Your task to perform on an android device: Is it going to rain tomorrow? Image 0: 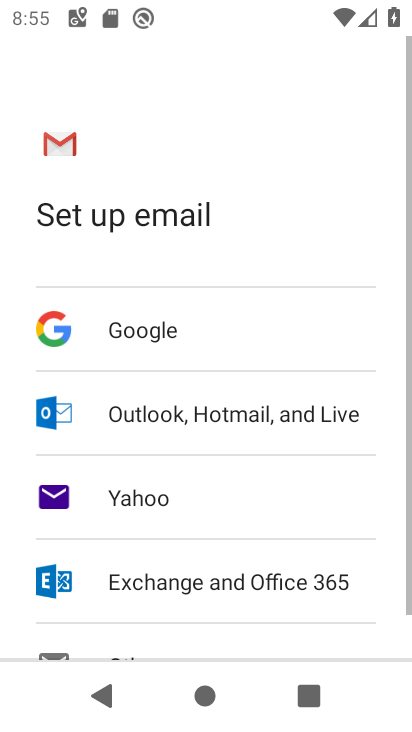
Step 0: press home button
Your task to perform on an android device: Is it going to rain tomorrow? Image 1: 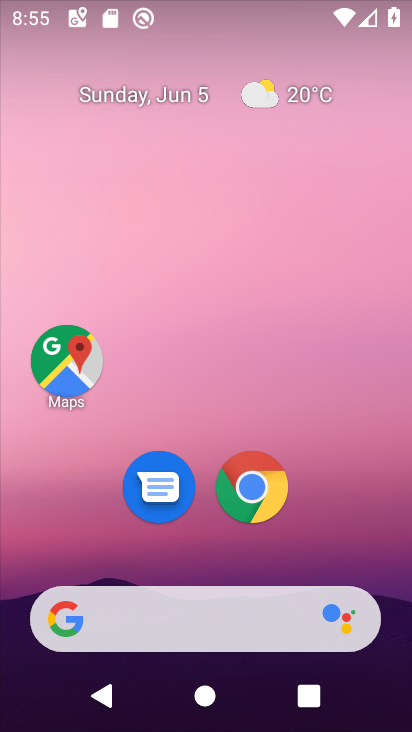
Step 1: click (252, 484)
Your task to perform on an android device: Is it going to rain tomorrow? Image 2: 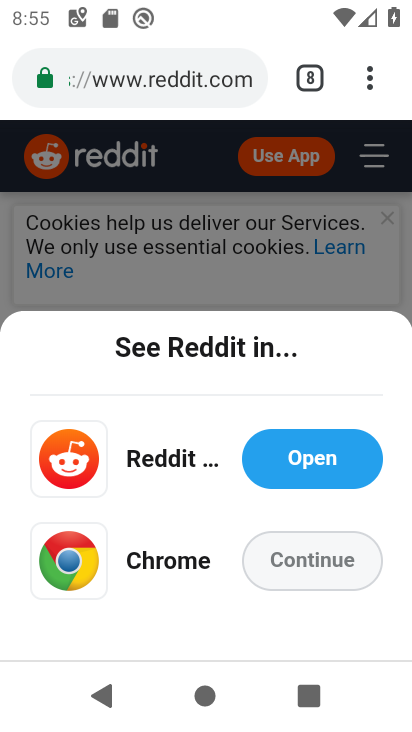
Step 2: click (379, 64)
Your task to perform on an android device: Is it going to rain tomorrow? Image 3: 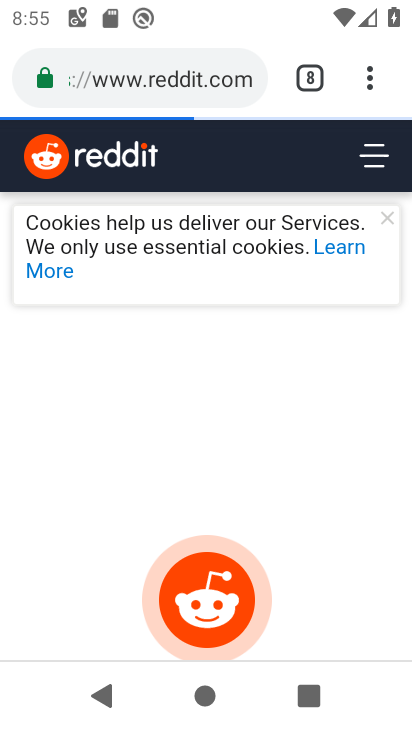
Step 3: click (371, 64)
Your task to perform on an android device: Is it going to rain tomorrow? Image 4: 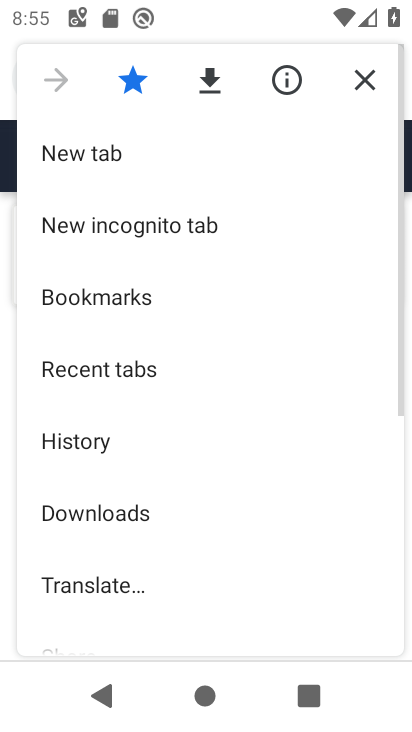
Step 4: click (76, 150)
Your task to perform on an android device: Is it going to rain tomorrow? Image 5: 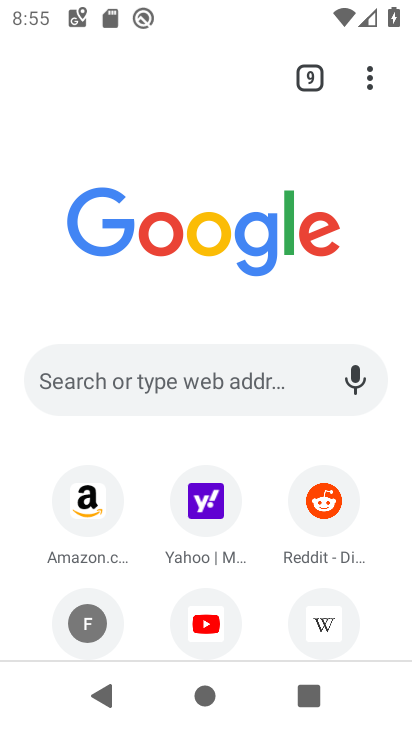
Step 5: click (177, 367)
Your task to perform on an android device: Is it going to rain tomorrow? Image 6: 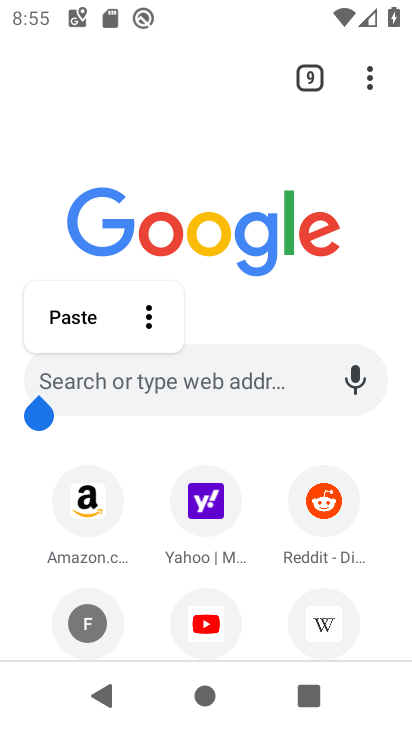
Step 6: type "Is it going to rain tomorrow?"
Your task to perform on an android device: Is it going to rain tomorrow? Image 7: 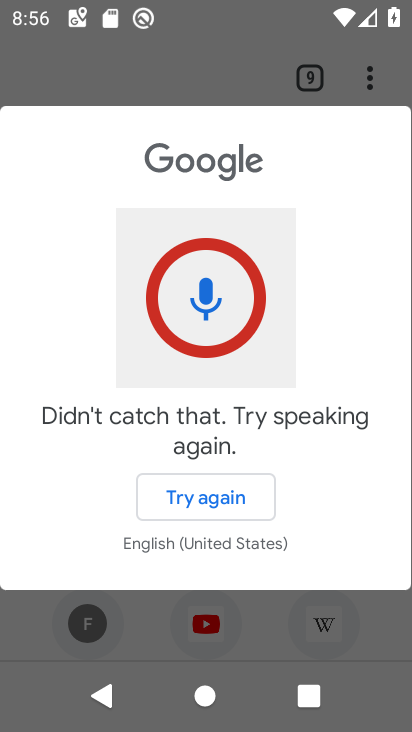
Step 7: click (221, 501)
Your task to perform on an android device: Is it going to rain tomorrow? Image 8: 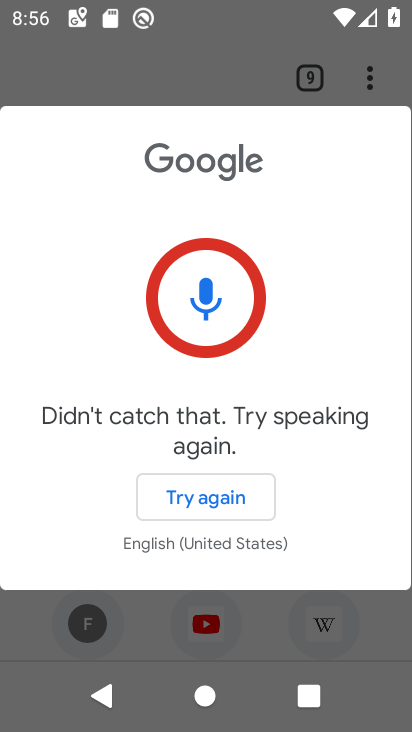
Step 8: click (221, 500)
Your task to perform on an android device: Is it going to rain tomorrow? Image 9: 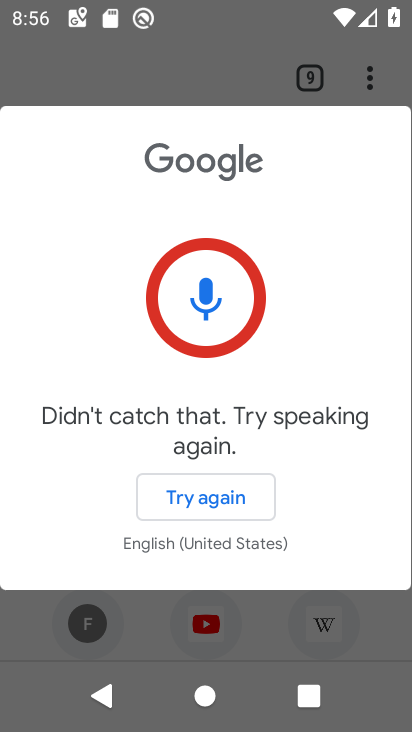
Step 9: press back button
Your task to perform on an android device: Is it going to rain tomorrow? Image 10: 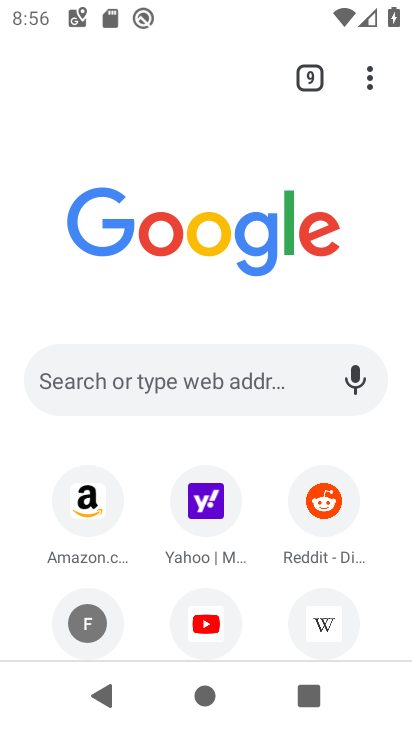
Step 10: click (209, 378)
Your task to perform on an android device: Is it going to rain tomorrow? Image 11: 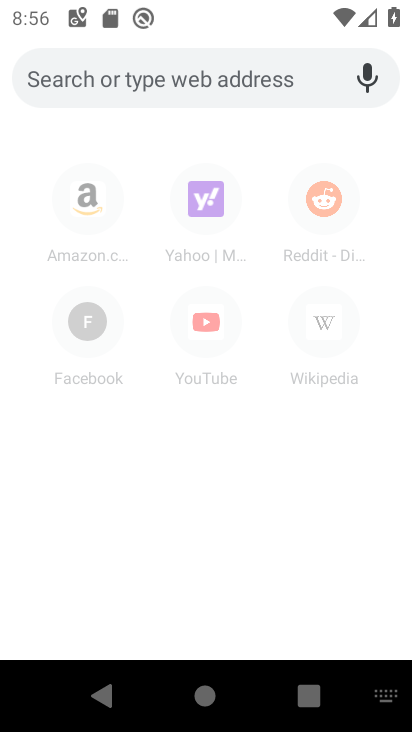
Step 11: type "Is it going to rain tomorrow?"
Your task to perform on an android device: Is it going to rain tomorrow? Image 12: 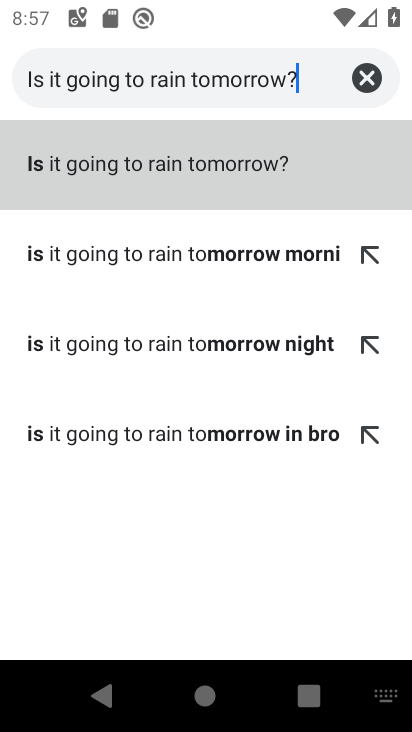
Step 12: click (322, 177)
Your task to perform on an android device: Is it going to rain tomorrow? Image 13: 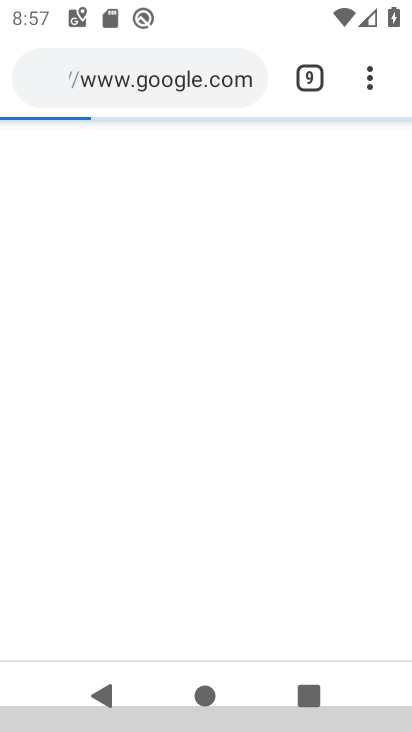
Step 13: task complete